Your task to perform on an android device: Go to privacy settings Image 0: 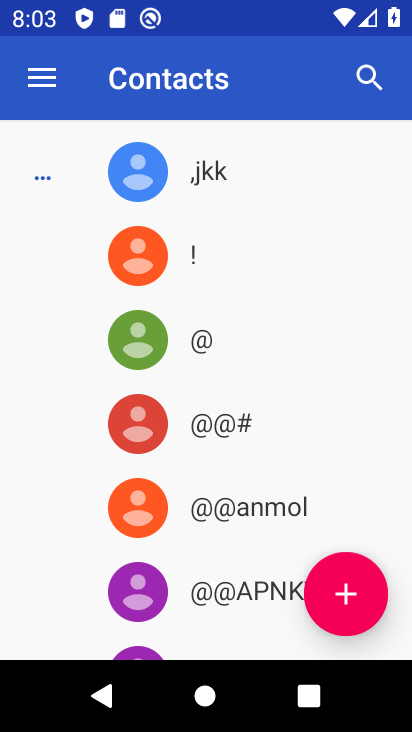
Step 0: press home button
Your task to perform on an android device: Go to privacy settings Image 1: 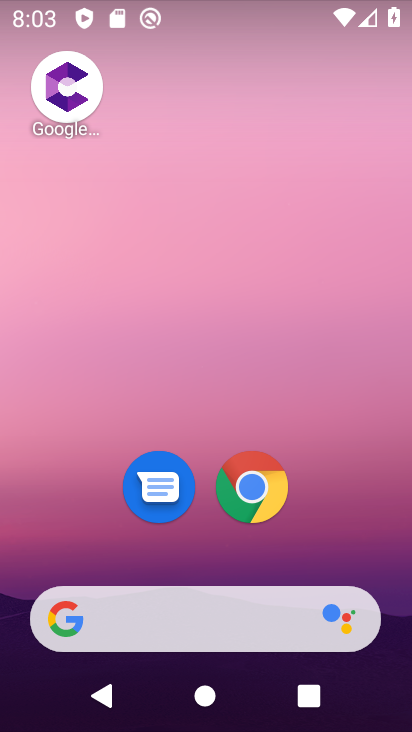
Step 1: drag from (215, 550) to (274, 45)
Your task to perform on an android device: Go to privacy settings Image 2: 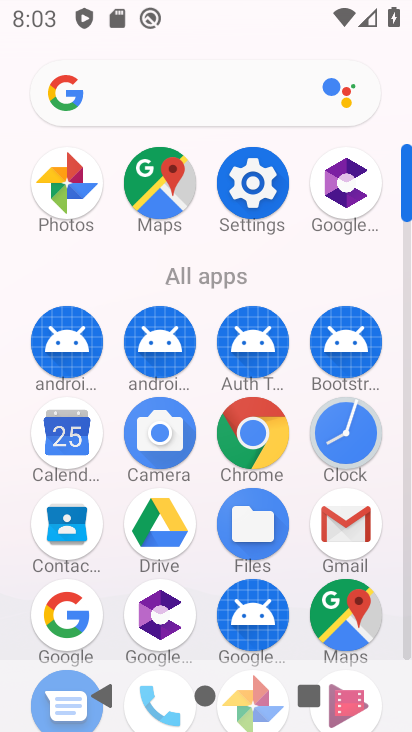
Step 2: click (271, 181)
Your task to perform on an android device: Go to privacy settings Image 3: 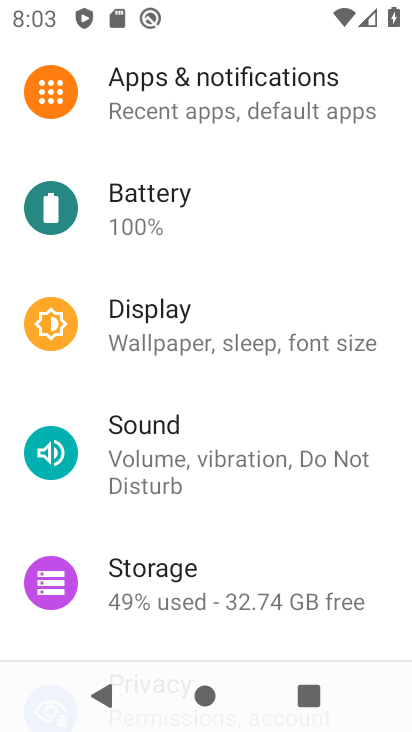
Step 3: drag from (206, 583) to (299, 209)
Your task to perform on an android device: Go to privacy settings Image 4: 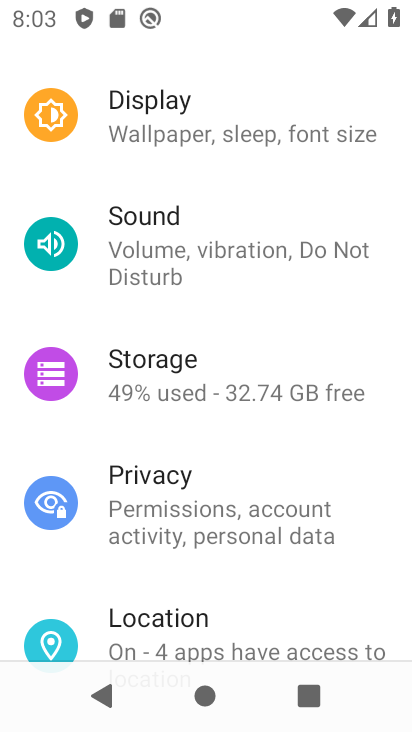
Step 4: click (102, 499)
Your task to perform on an android device: Go to privacy settings Image 5: 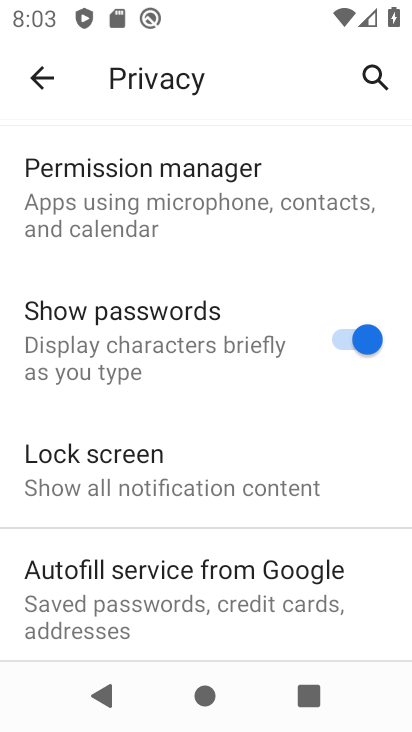
Step 5: task complete